Your task to perform on an android device: turn off notifications settings in the gmail app Image 0: 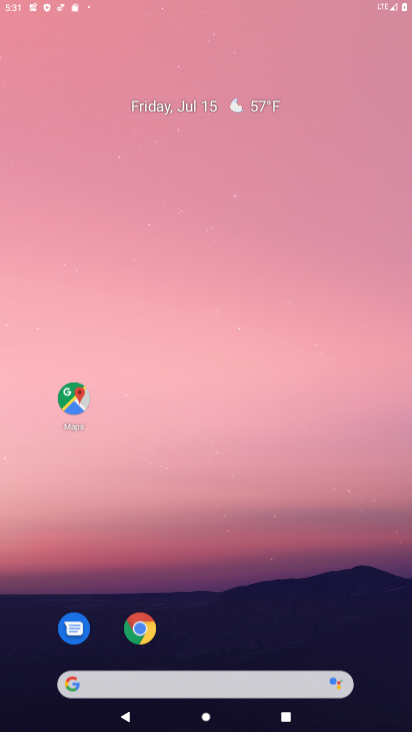
Step 0: press home button
Your task to perform on an android device: turn off notifications settings in the gmail app Image 1: 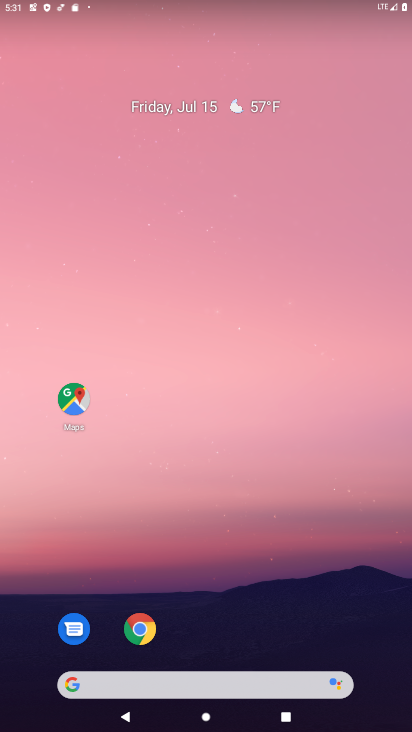
Step 1: drag from (232, 655) to (304, 156)
Your task to perform on an android device: turn off notifications settings in the gmail app Image 2: 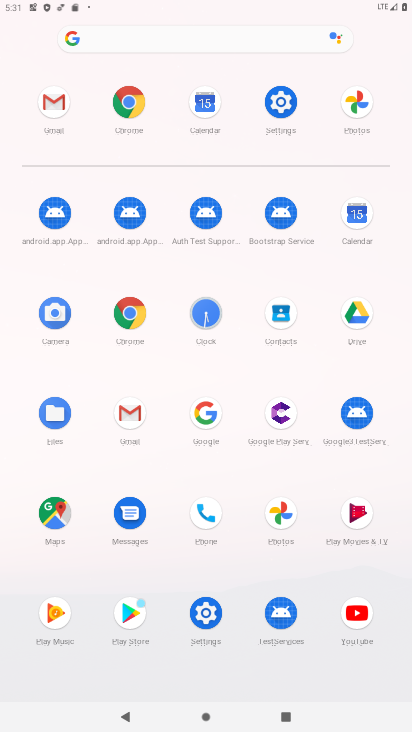
Step 2: click (50, 105)
Your task to perform on an android device: turn off notifications settings in the gmail app Image 3: 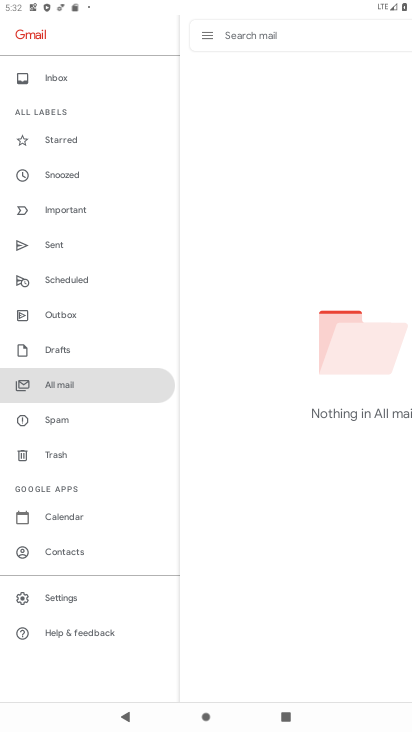
Step 3: click (61, 599)
Your task to perform on an android device: turn off notifications settings in the gmail app Image 4: 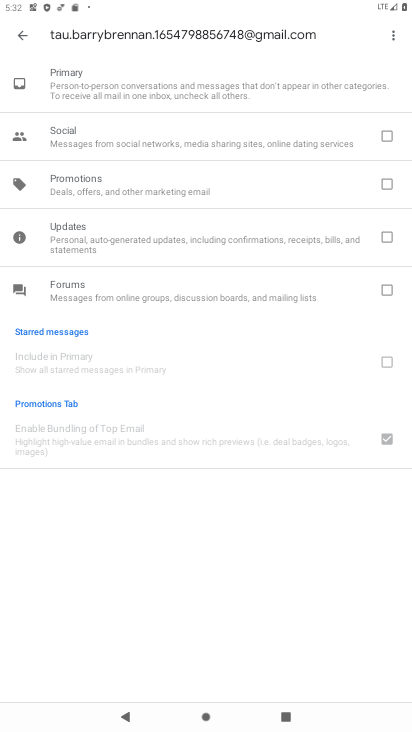
Step 4: drag from (242, 157) to (225, 593)
Your task to perform on an android device: turn off notifications settings in the gmail app Image 5: 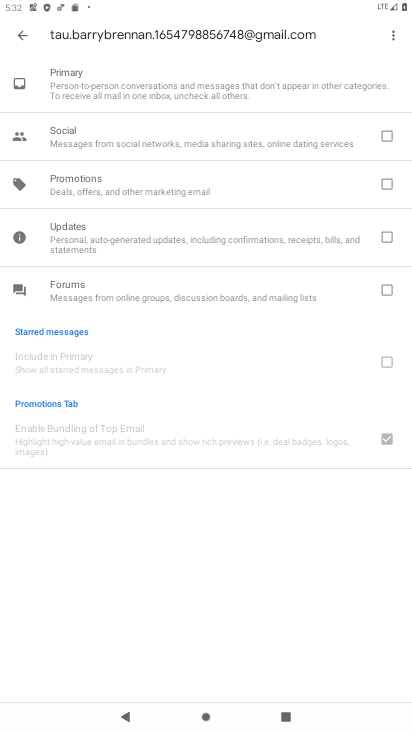
Step 5: drag from (232, 556) to (252, 163)
Your task to perform on an android device: turn off notifications settings in the gmail app Image 6: 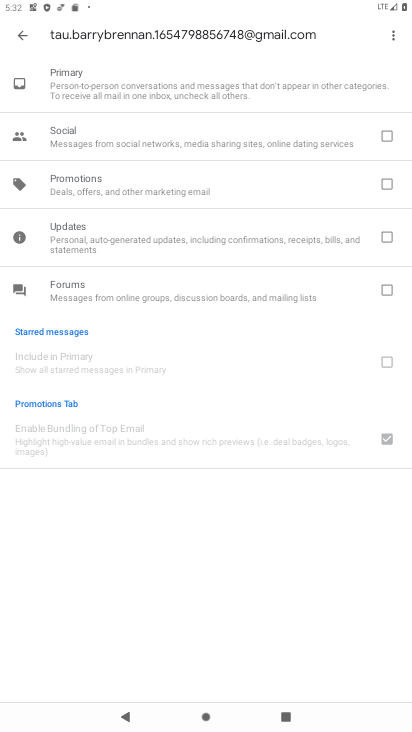
Step 6: click (24, 35)
Your task to perform on an android device: turn off notifications settings in the gmail app Image 7: 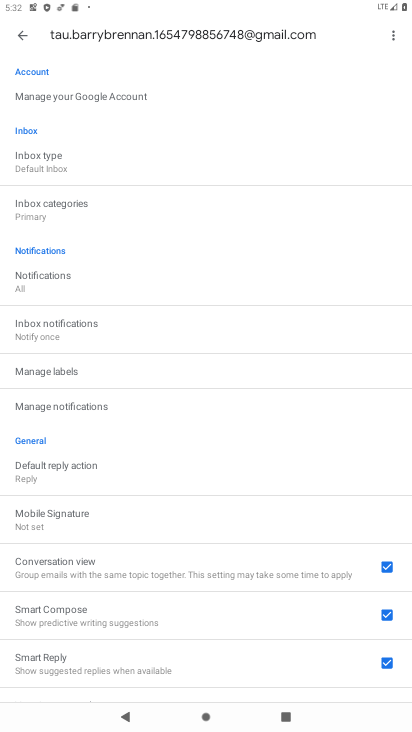
Step 7: click (50, 408)
Your task to perform on an android device: turn off notifications settings in the gmail app Image 8: 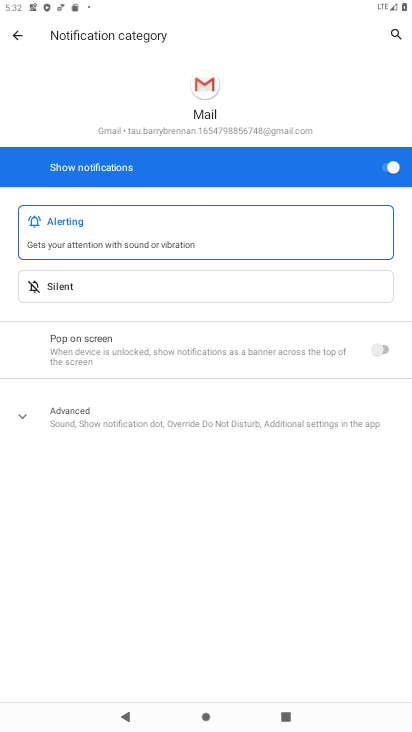
Step 8: click (396, 166)
Your task to perform on an android device: turn off notifications settings in the gmail app Image 9: 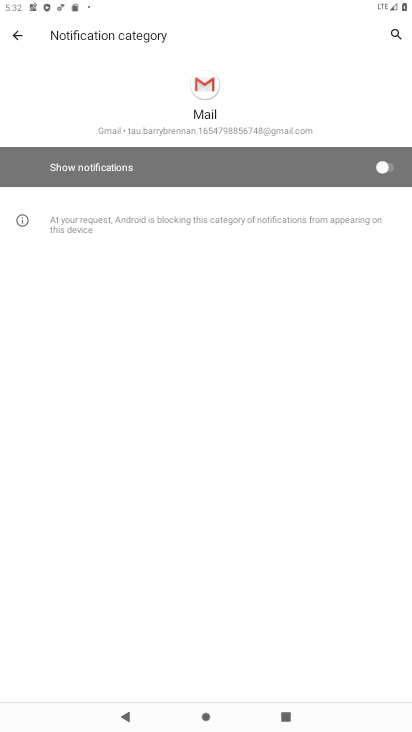
Step 9: task complete